Your task to perform on an android device: Play the last video I watched on Youtube Image 0: 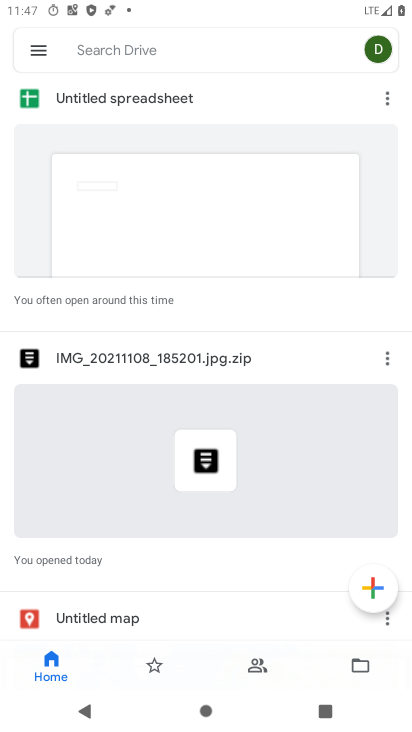
Step 0: press home button
Your task to perform on an android device: Play the last video I watched on Youtube Image 1: 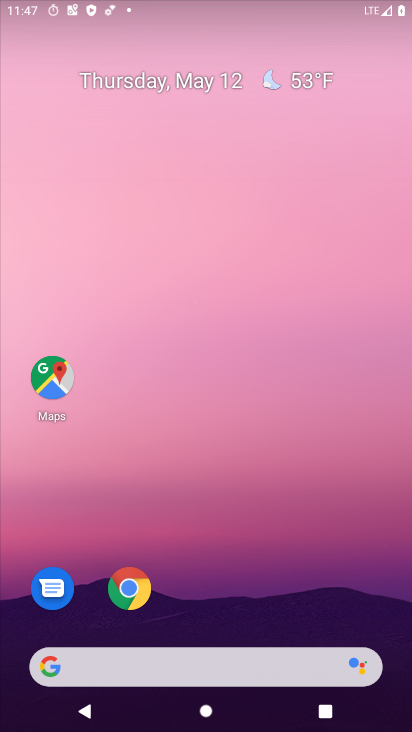
Step 1: drag from (297, 589) to (232, 200)
Your task to perform on an android device: Play the last video I watched on Youtube Image 2: 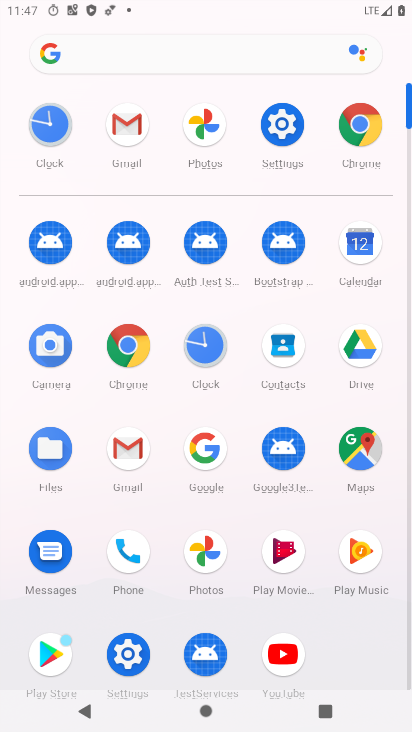
Step 2: click (286, 652)
Your task to perform on an android device: Play the last video I watched on Youtube Image 3: 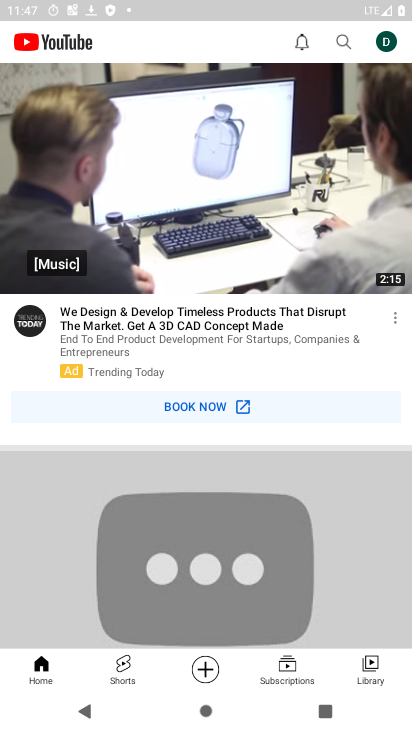
Step 3: click (387, 676)
Your task to perform on an android device: Play the last video I watched on Youtube Image 4: 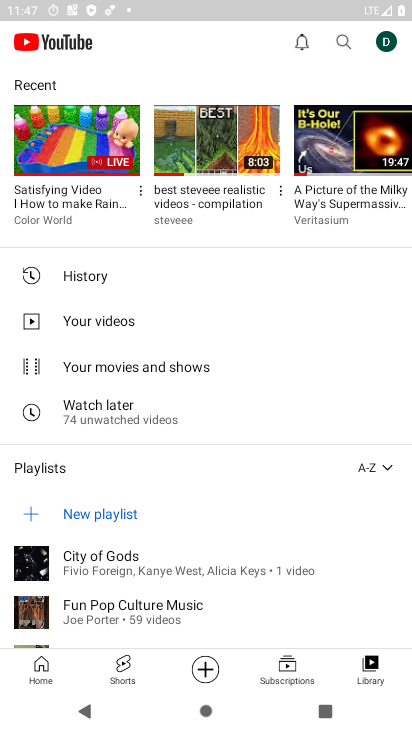
Step 4: click (123, 267)
Your task to perform on an android device: Play the last video I watched on Youtube Image 5: 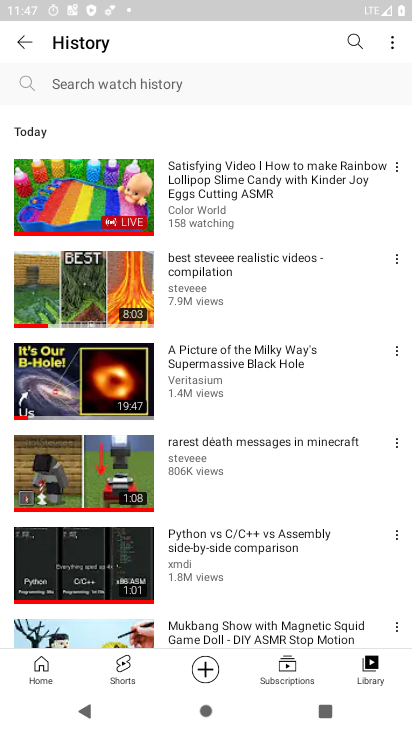
Step 5: click (116, 185)
Your task to perform on an android device: Play the last video I watched on Youtube Image 6: 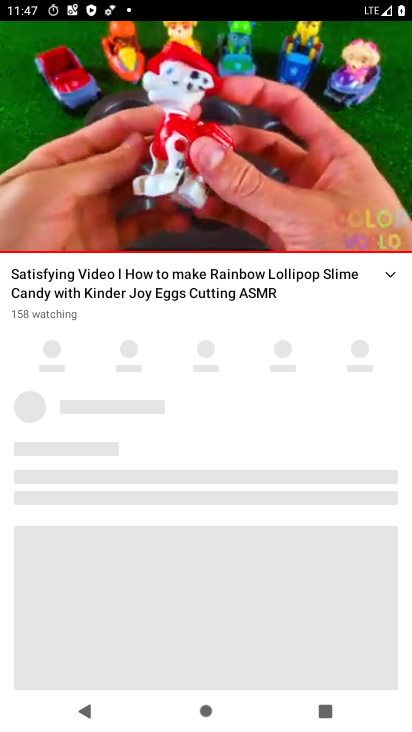
Step 6: task complete